Your task to perform on an android device: turn off priority inbox in the gmail app Image 0: 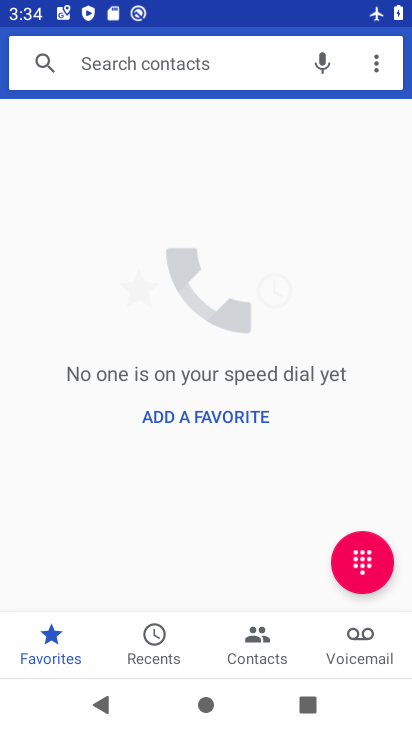
Step 0: press home button
Your task to perform on an android device: turn off priority inbox in the gmail app Image 1: 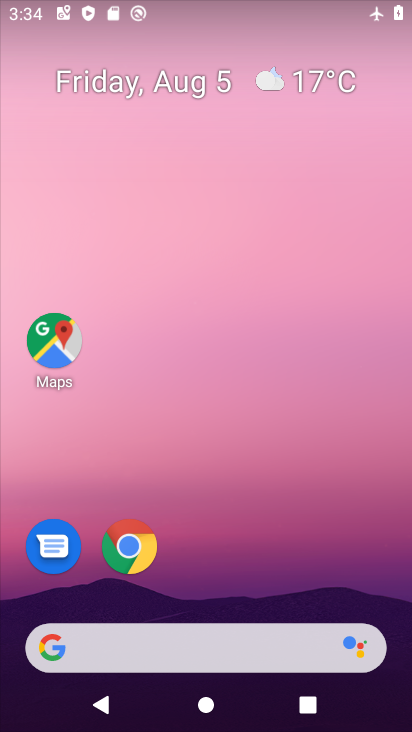
Step 1: drag from (291, 555) to (294, 175)
Your task to perform on an android device: turn off priority inbox in the gmail app Image 2: 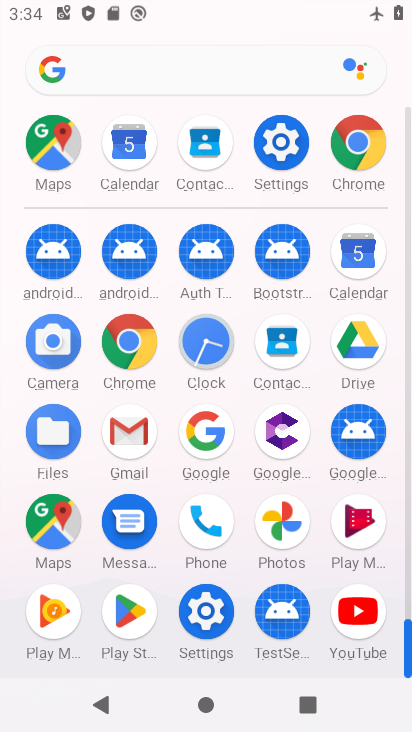
Step 2: click (125, 434)
Your task to perform on an android device: turn off priority inbox in the gmail app Image 3: 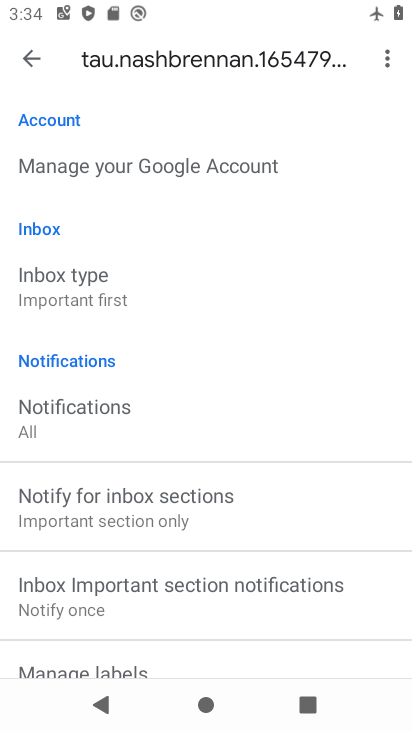
Step 3: task complete